Your task to perform on an android device: Open Google Chrome Image 0: 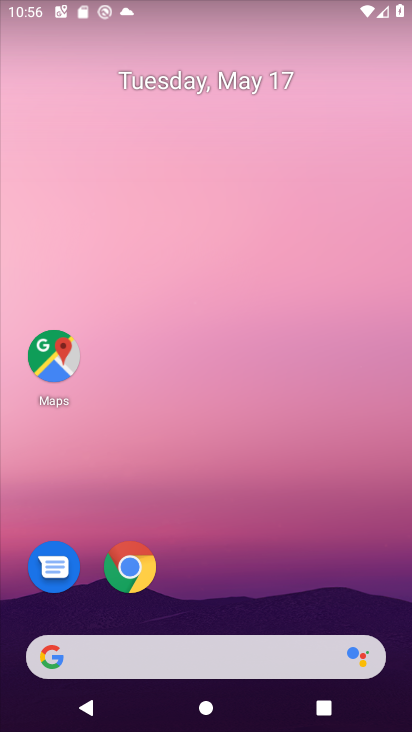
Step 0: click (143, 558)
Your task to perform on an android device: Open Google Chrome Image 1: 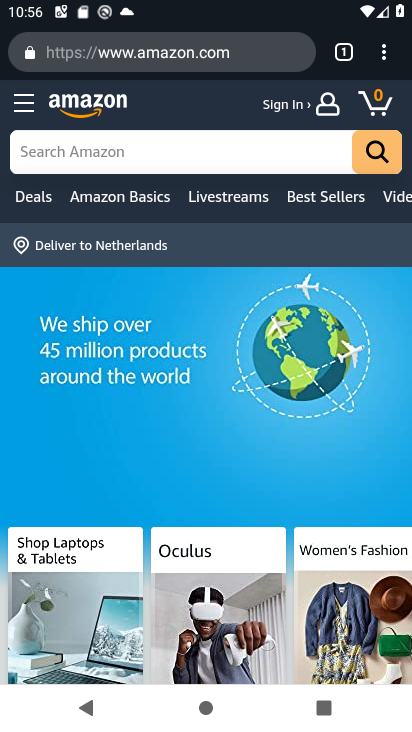
Step 1: task complete